Your task to perform on an android device: delete the emails in spam in the gmail app Image 0: 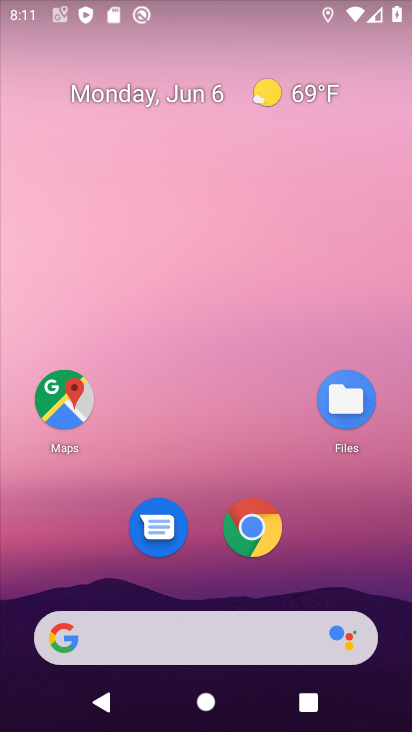
Step 0: drag from (325, 545) to (287, 66)
Your task to perform on an android device: delete the emails in spam in the gmail app Image 1: 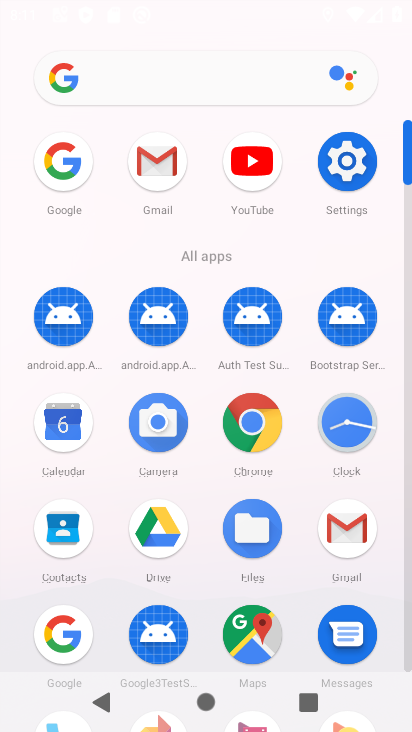
Step 1: click (153, 152)
Your task to perform on an android device: delete the emails in spam in the gmail app Image 2: 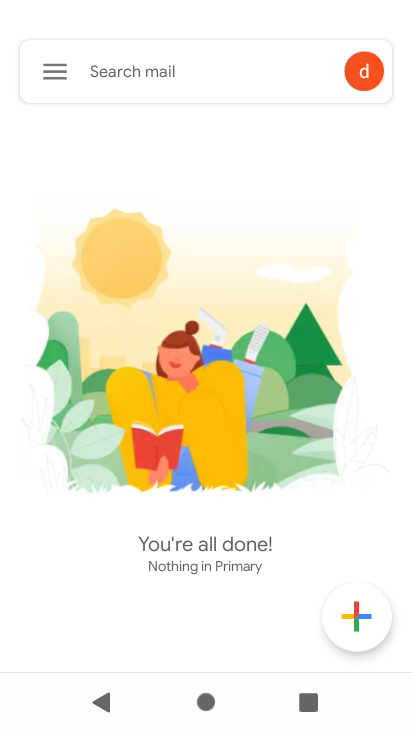
Step 2: click (63, 73)
Your task to perform on an android device: delete the emails in spam in the gmail app Image 3: 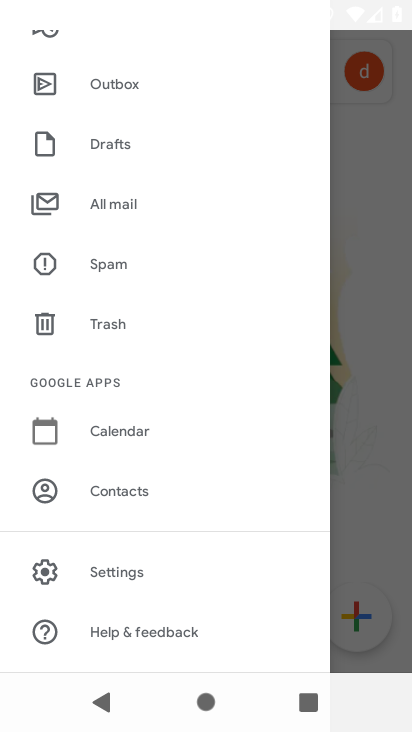
Step 3: click (133, 281)
Your task to perform on an android device: delete the emails in spam in the gmail app Image 4: 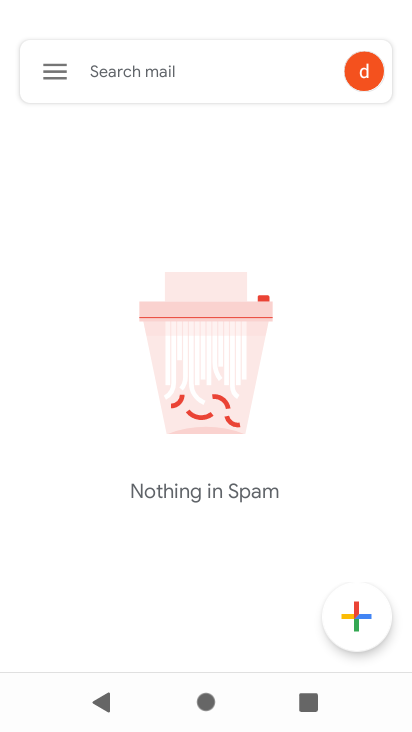
Step 4: task complete